Your task to perform on an android device: turn on improve location accuracy Image 0: 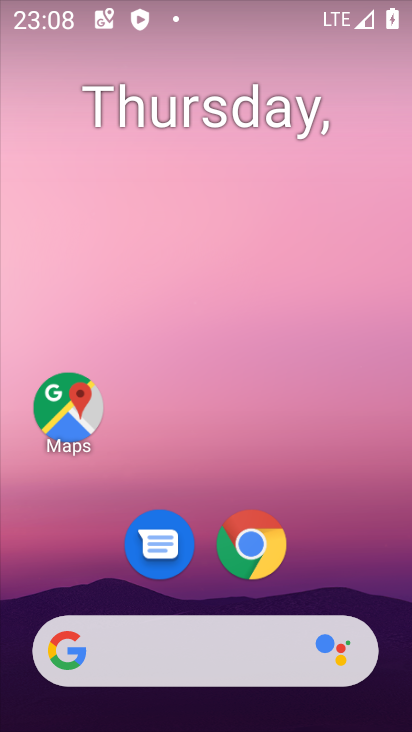
Step 0: drag from (297, 520) to (233, 135)
Your task to perform on an android device: turn on improve location accuracy Image 1: 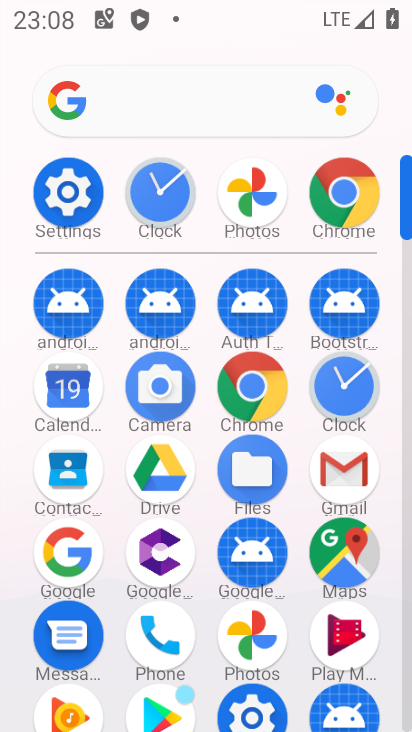
Step 1: click (59, 170)
Your task to perform on an android device: turn on improve location accuracy Image 2: 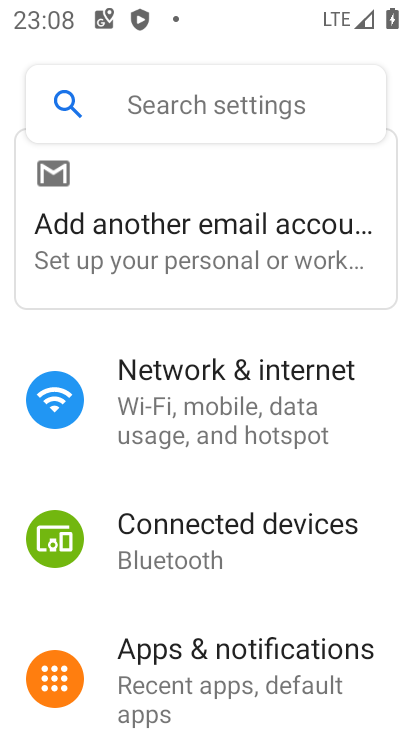
Step 2: drag from (229, 680) to (211, 176)
Your task to perform on an android device: turn on improve location accuracy Image 3: 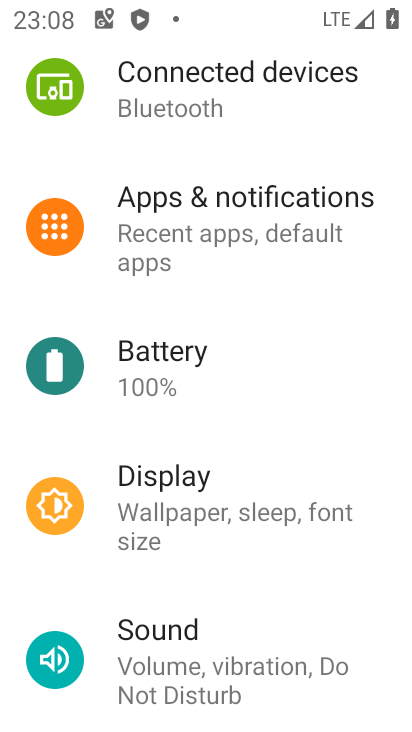
Step 3: drag from (178, 671) to (195, 248)
Your task to perform on an android device: turn on improve location accuracy Image 4: 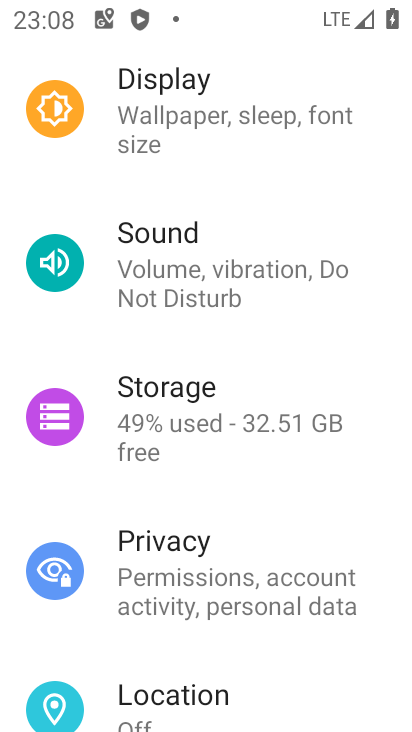
Step 4: click (182, 715)
Your task to perform on an android device: turn on improve location accuracy Image 5: 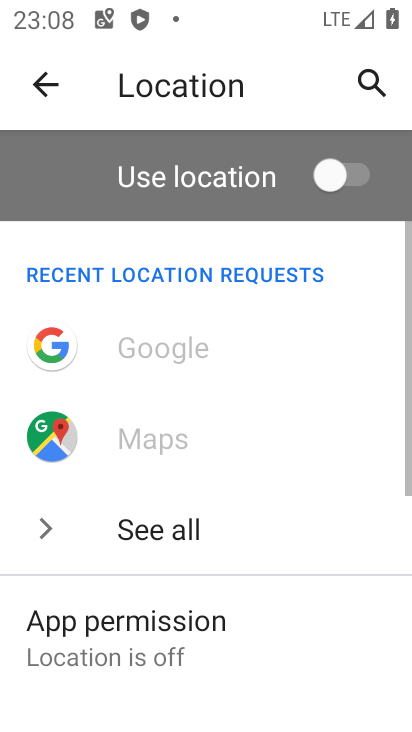
Step 5: drag from (183, 686) to (222, 269)
Your task to perform on an android device: turn on improve location accuracy Image 6: 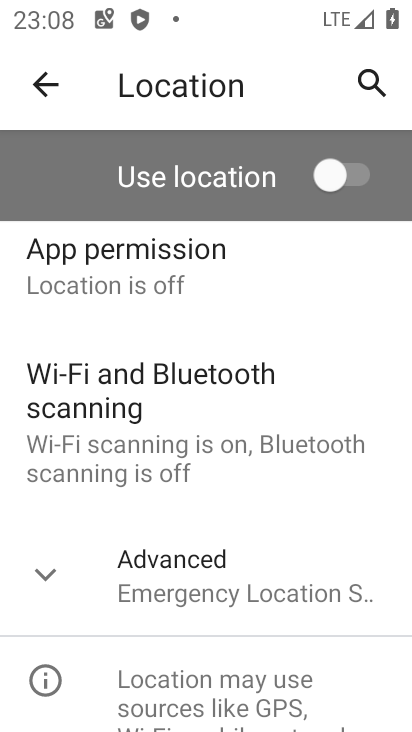
Step 6: click (201, 583)
Your task to perform on an android device: turn on improve location accuracy Image 7: 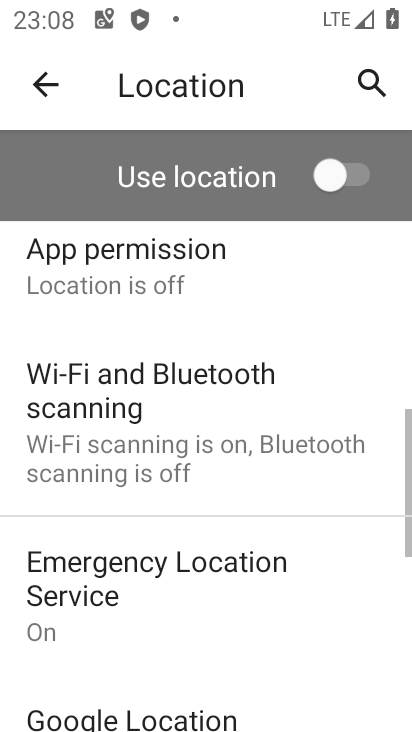
Step 7: drag from (183, 648) to (186, 279)
Your task to perform on an android device: turn on improve location accuracy Image 8: 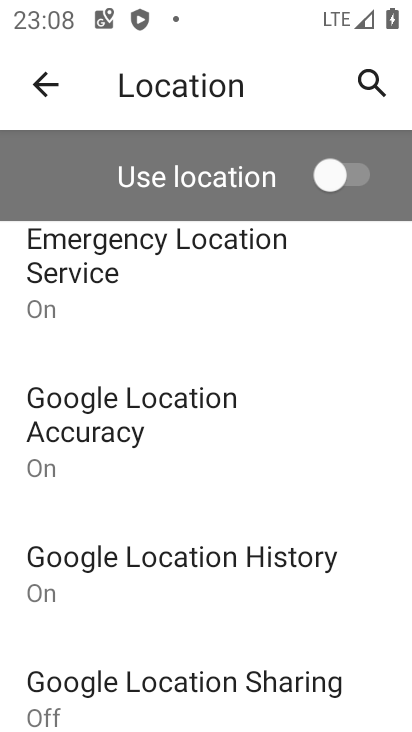
Step 8: click (113, 426)
Your task to perform on an android device: turn on improve location accuracy Image 9: 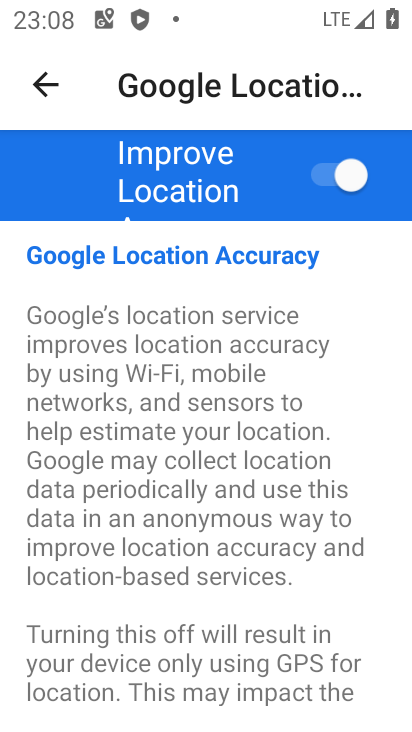
Step 9: task complete